Your task to perform on an android device: turn off improve location accuracy Image 0: 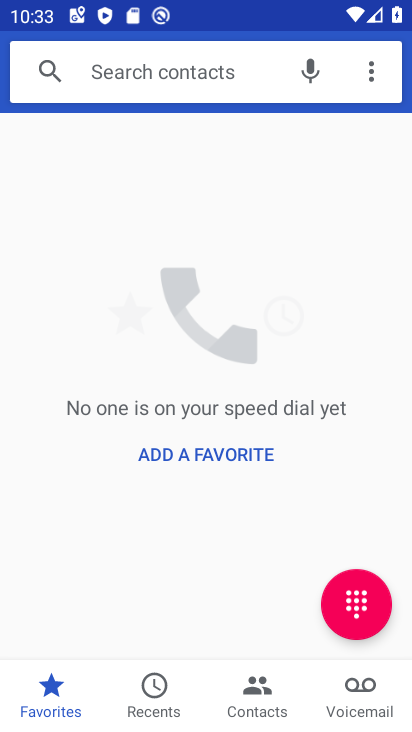
Step 0: press home button
Your task to perform on an android device: turn off improve location accuracy Image 1: 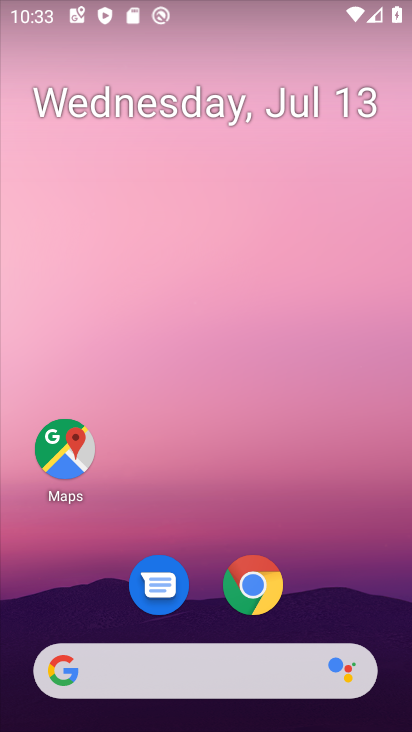
Step 1: drag from (257, 498) to (254, 22)
Your task to perform on an android device: turn off improve location accuracy Image 2: 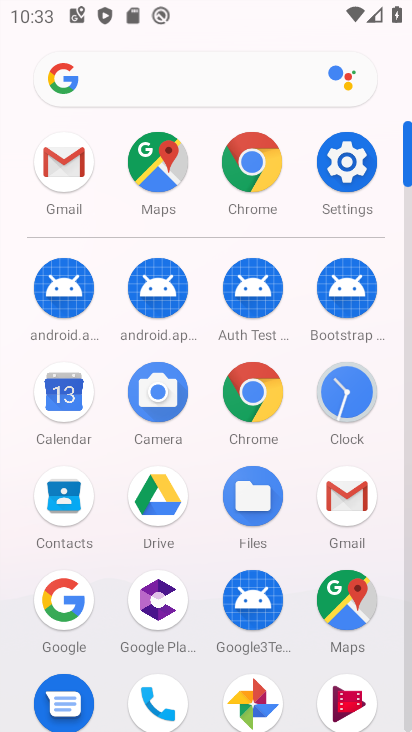
Step 2: click (347, 160)
Your task to perform on an android device: turn off improve location accuracy Image 3: 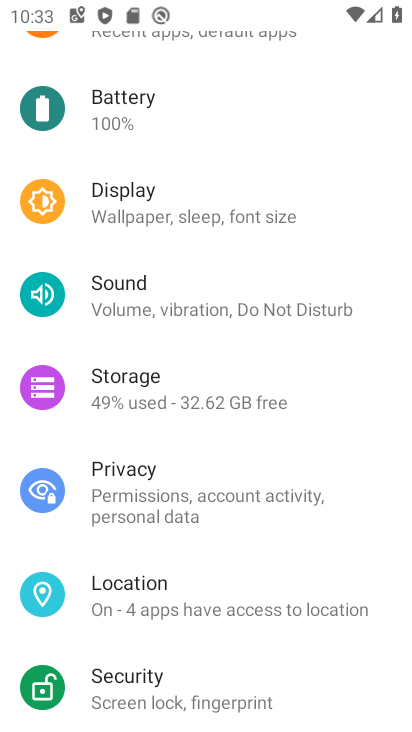
Step 3: click (259, 585)
Your task to perform on an android device: turn off improve location accuracy Image 4: 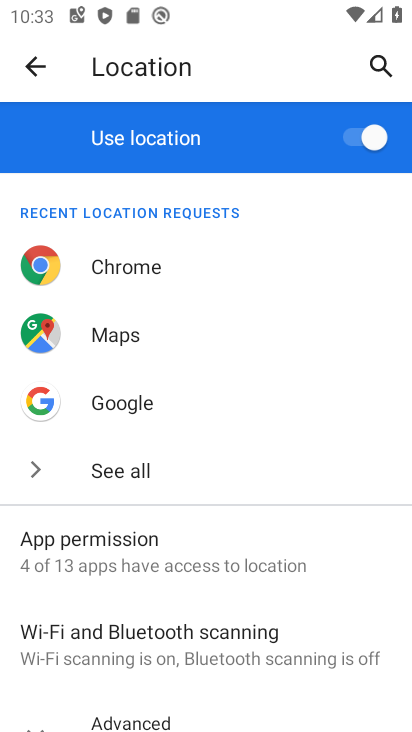
Step 4: drag from (147, 535) to (206, 327)
Your task to perform on an android device: turn off improve location accuracy Image 5: 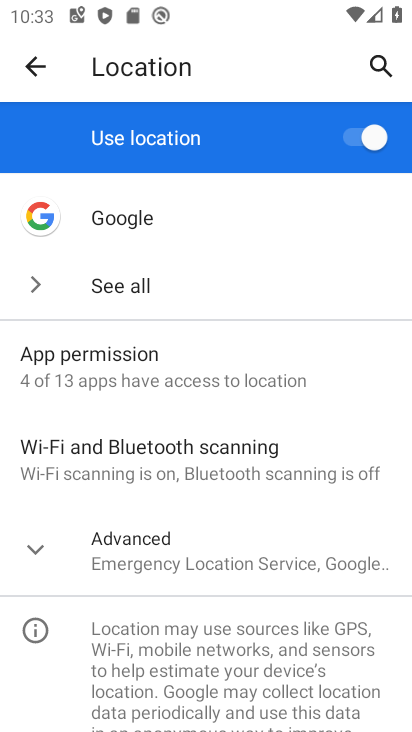
Step 5: click (35, 540)
Your task to perform on an android device: turn off improve location accuracy Image 6: 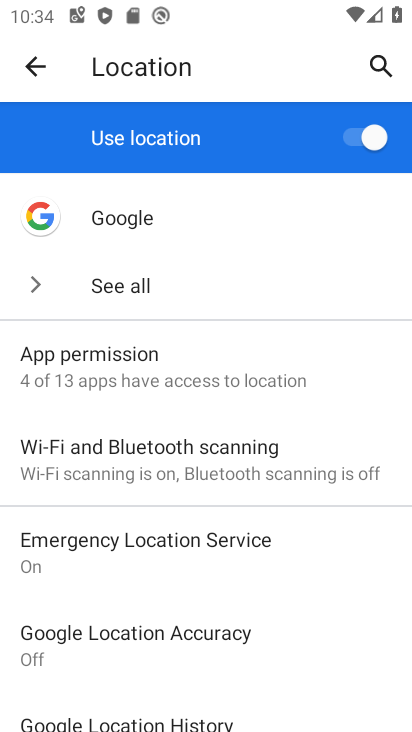
Step 6: task complete